Your task to perform on an android device: change timer sound Image 0: 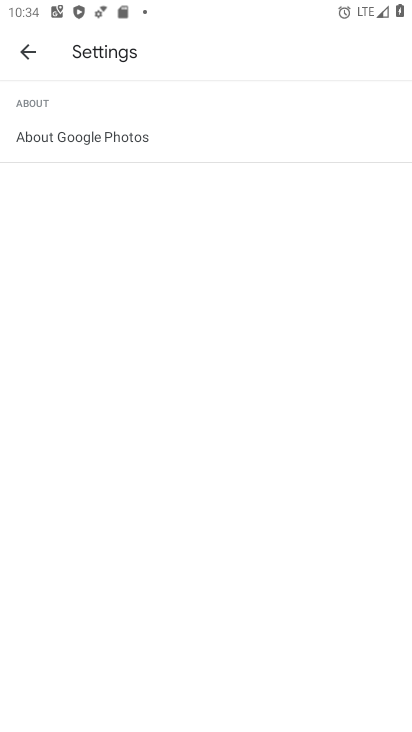
Step 0: press home button
Your task to perform on an android device: change timer sound Image 1: 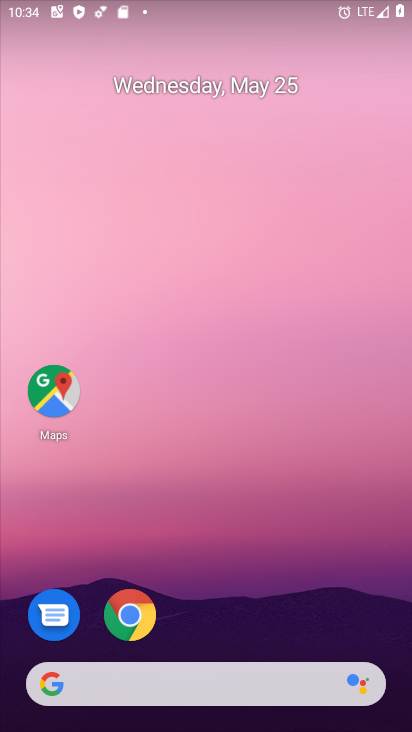
Step 1: drag from (235, 465) to (274, 67)
Your task to perform on an android device: change timer sound Image 2: 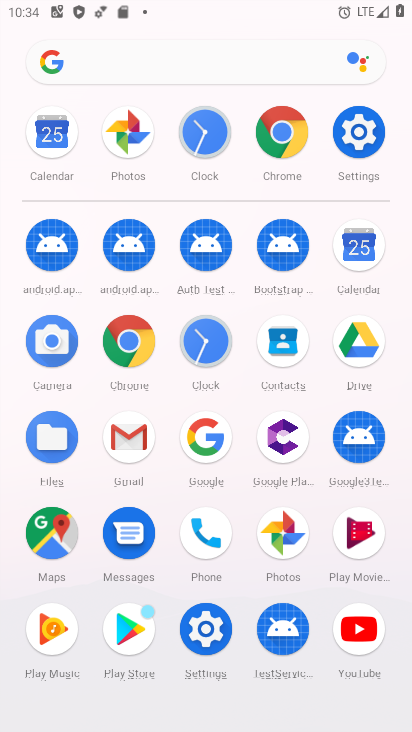
Step 2: click (201, 135)
Your task to perform on an android device: change timer sound Image 3: 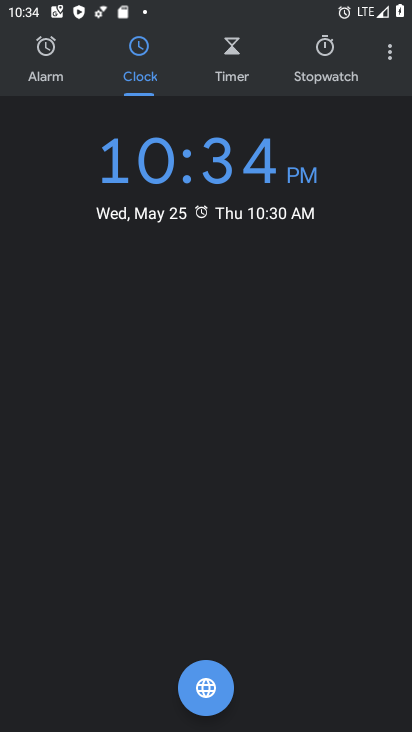
Step 3: click (385, 54)
Your task to perform on an android device: change timer sound Image 4: 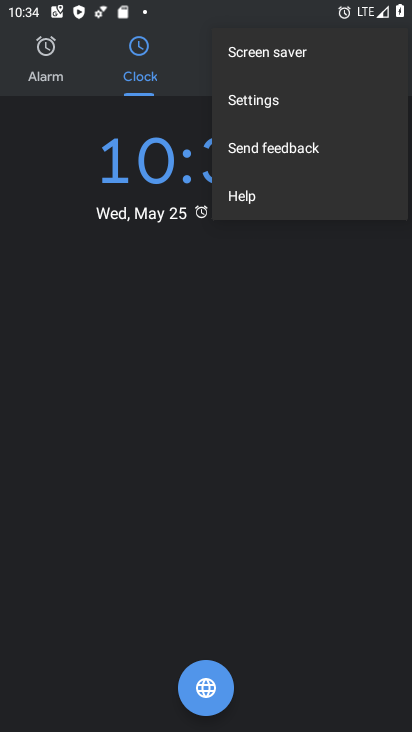
Step 4: click (311, 104)
Your task to perform on an android device: change timer sound Image 5: 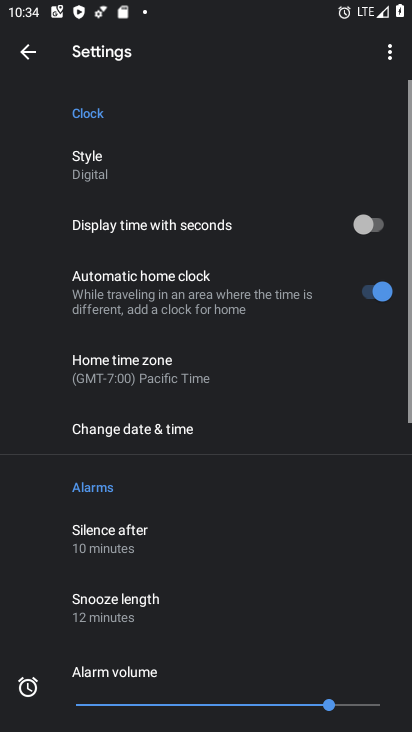
Step 5: drag from (186, 597) to (220, 132)
Your task to perform on an android device: change timer sound Image 6: 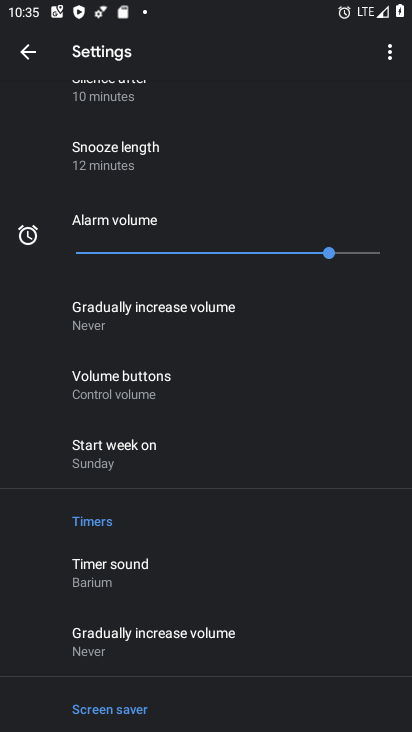
Step 6: click (145, 565)
Your task to perform on an android device: change timer sound Image 7: 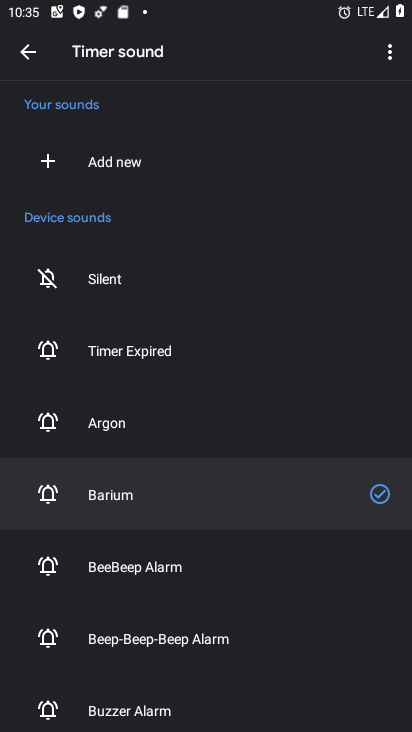
Step 7: click (154, 433)
Your task to perform on an android device: change timer sound Image 8: 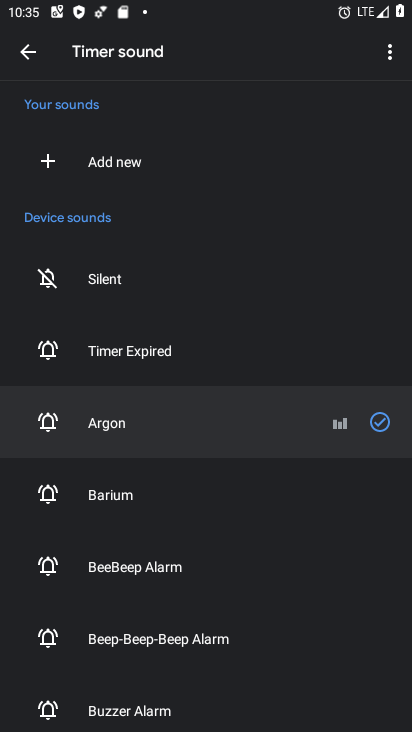
Step 8: task complete